Your task to perform on an android device: Open Reddit.com Image 0: 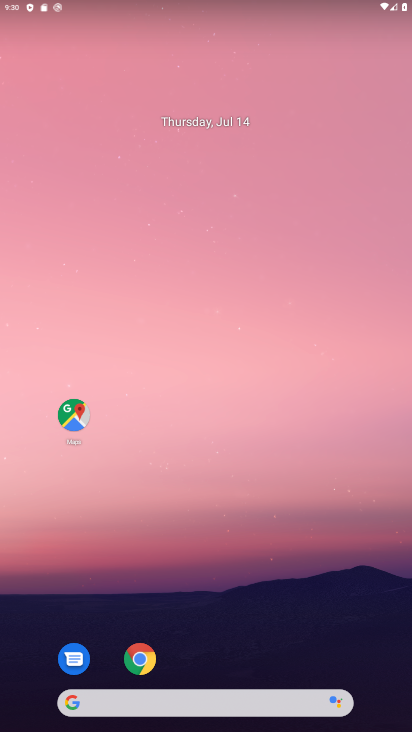
Step 0: drag from (319, 611) to (314, 52)
Your task to perform on an android device: Open Reddit.com Image 1: 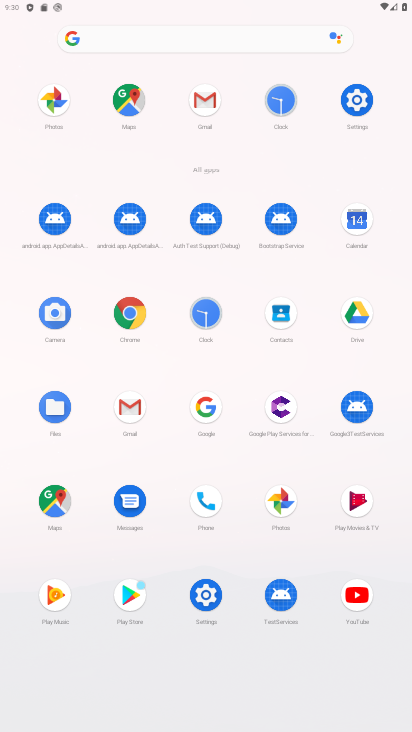
Step 1: click (126, 313)
Your task to perform on an android device: Open Reddit.com Image 2: 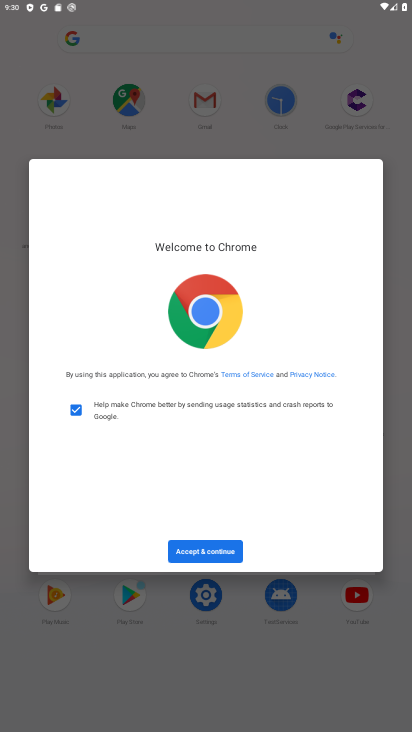
Step 2: click (212, 557)
Your task to perform on an android device: Open Reddit.com Image 3: 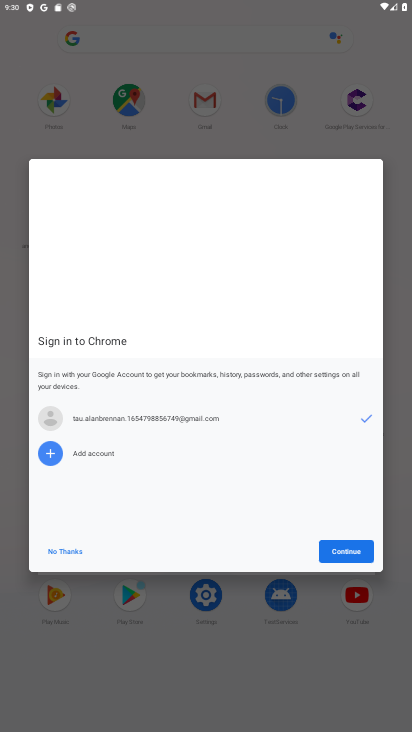
Step 3: click (335, 557)
Your task to perform on an android device: Open Reddit.com Image 4: 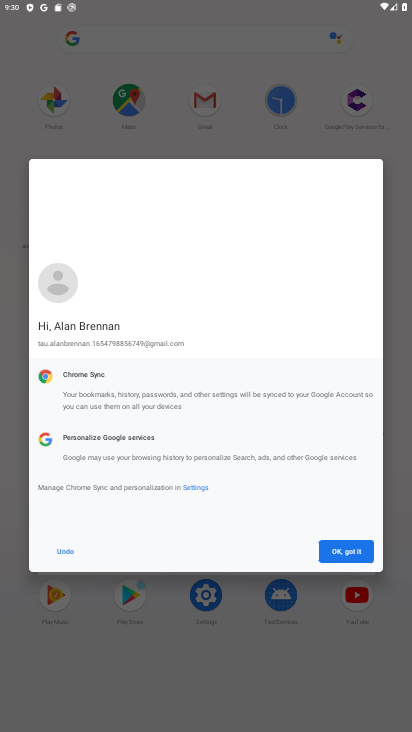
Step 4: click (335, 557)
Your task to perform on an android device: Open Reddit.com Image 5: 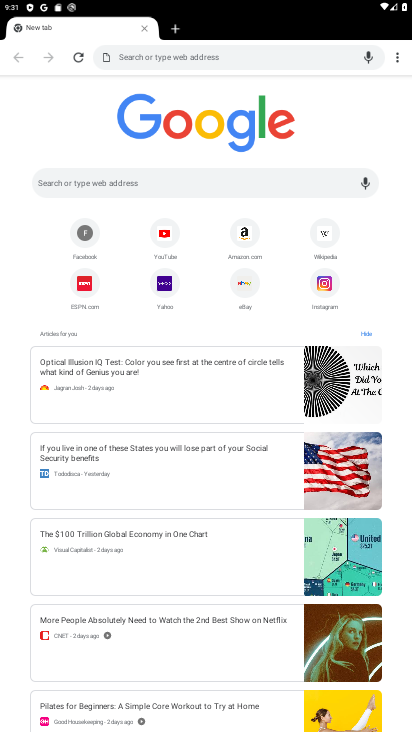
Step 5: click (233, 68)
Your task to perform on an android device: Open Reddit.com Image 6: 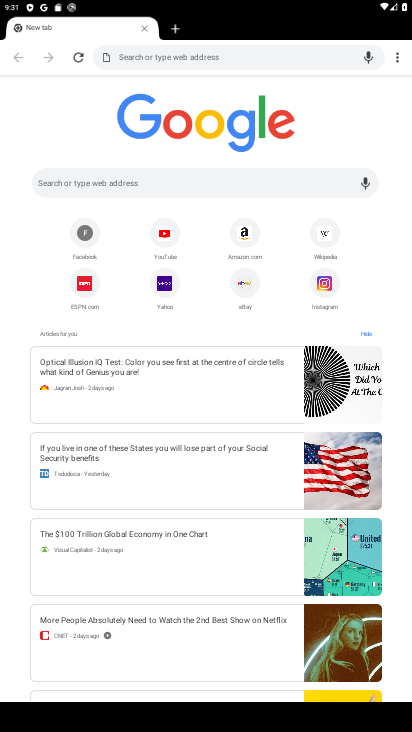
Step 6: type "Reddit.com"
Your task to perform on an android device: Open Reddit.com Image 7: 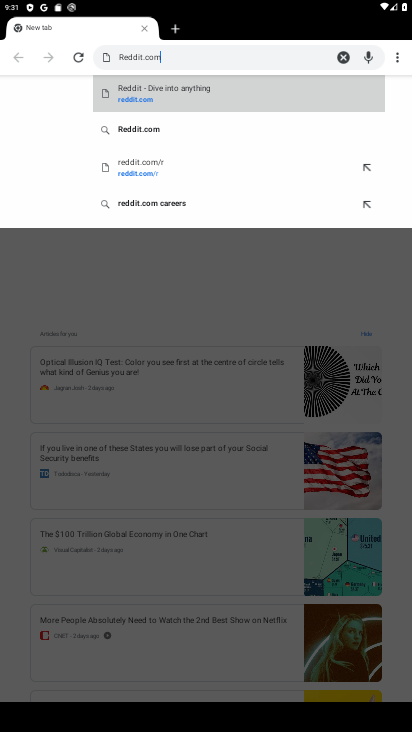
Step 7: click (160, 101)
Your task to perform on an android device: Open Reddit.com Image 8: 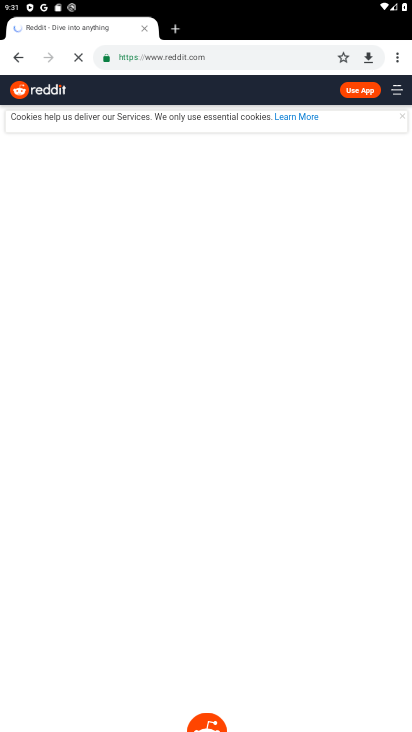
Step 8: task complete